Your task to perform on an android device: install app "Expedia: Hotels, Flights & Car" Image 0: 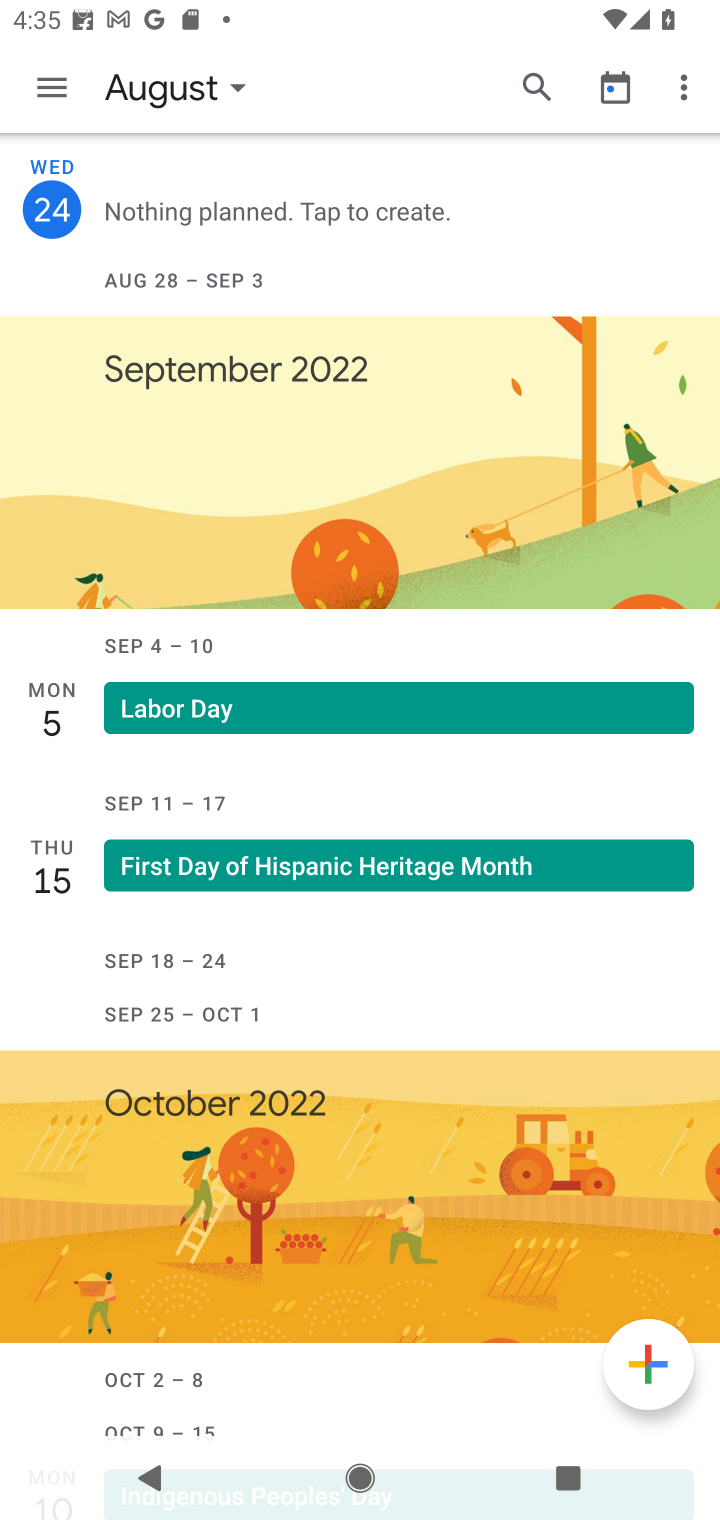
Step 0: press home button
Your task to perform on an android device: install app "Expedia: Hotels, Flights & Car" Image 1: 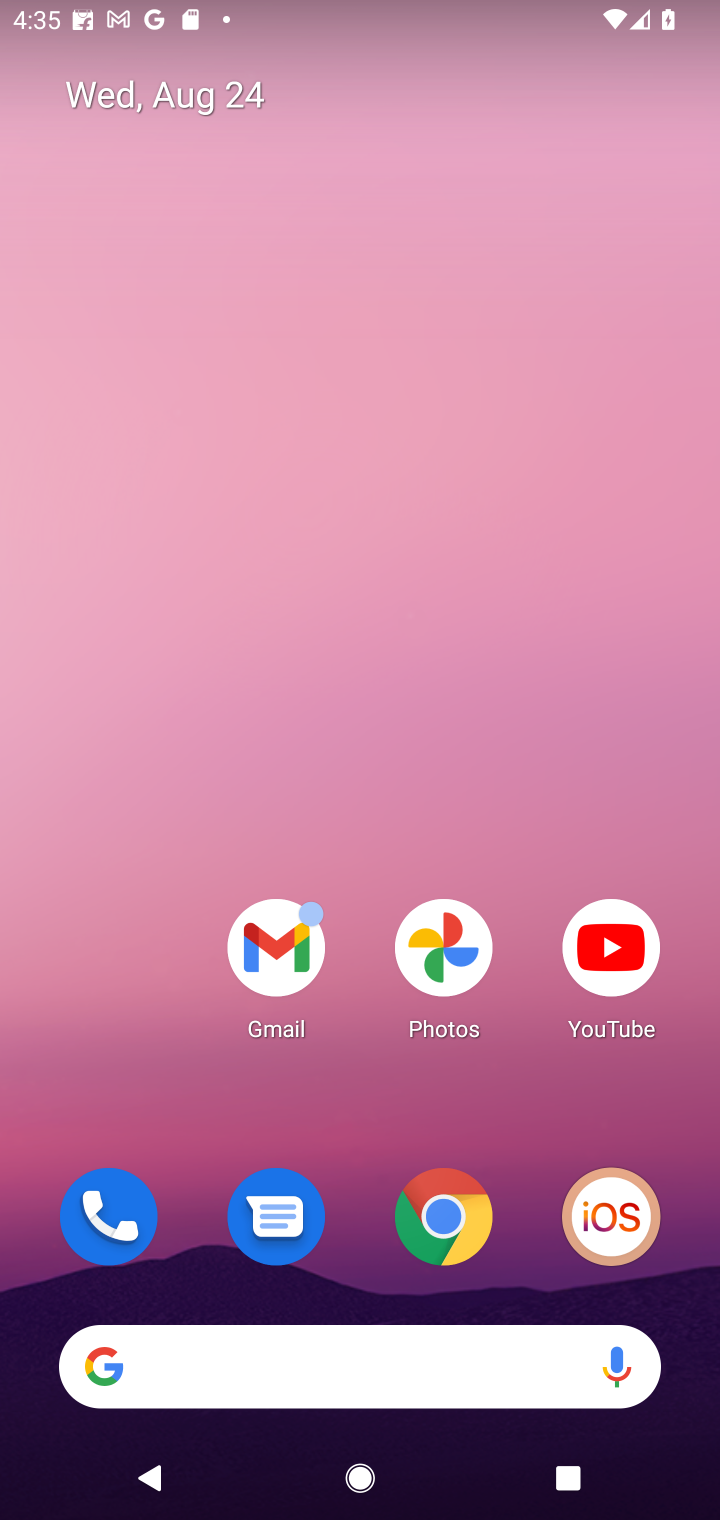
Step 1: drag from (355, 566) to (355, 151)
Your task to perform on an android device: install app "Expedia: Hotels, Flights & Car" Image 2: 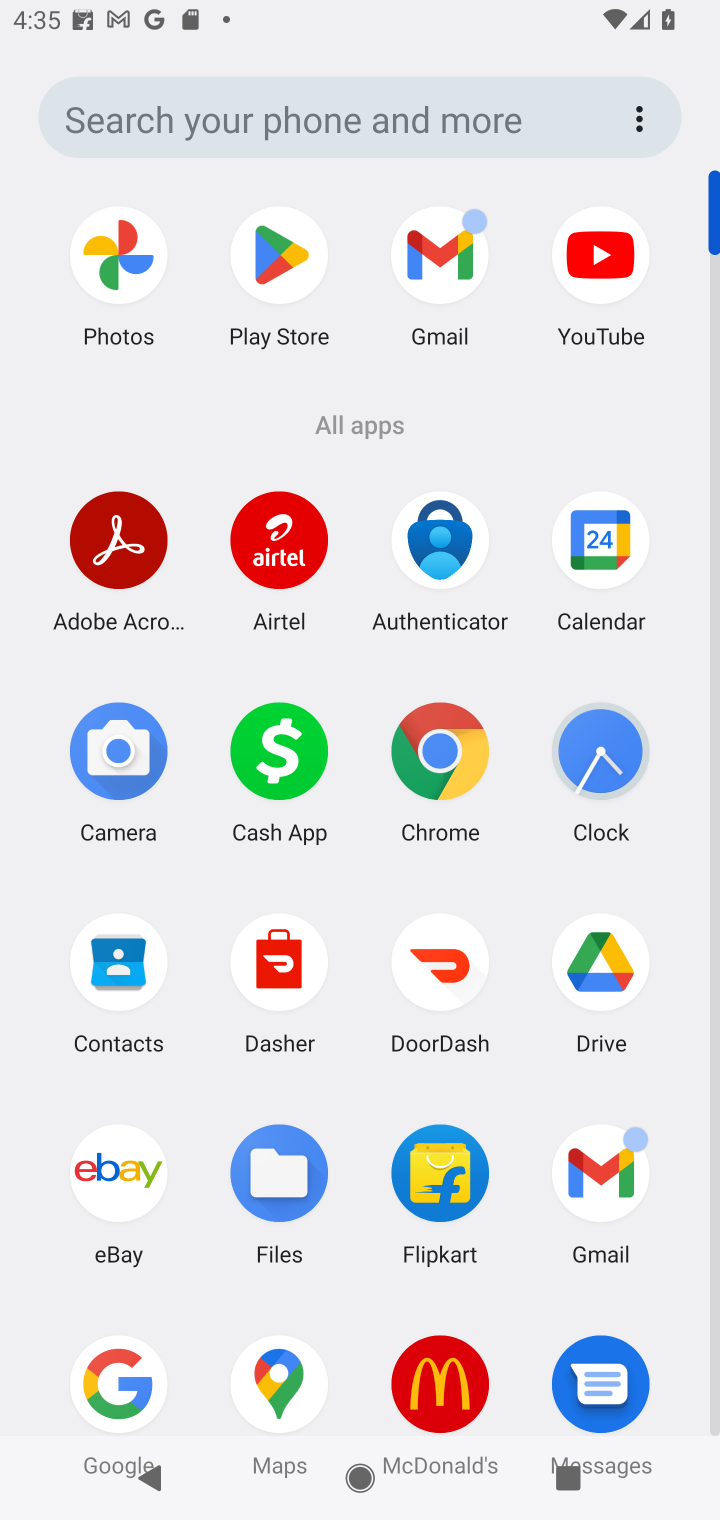
Step 2: click (278, 272)
Your task to perform on an android device: install app "Expedia: Hotels, Flights & Car" Image 3: 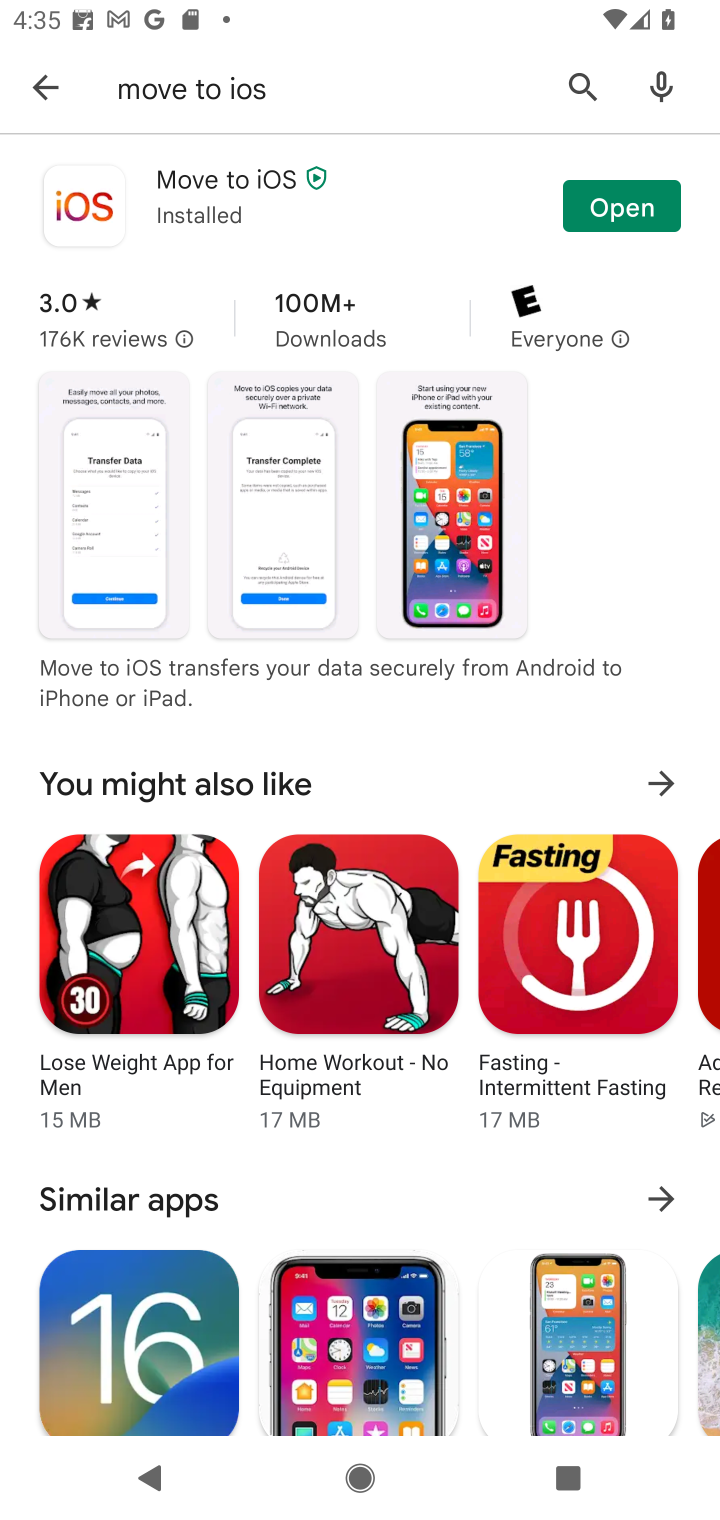
Step 3: click (573, 71)
Your task to perform on an android device: install app "Expedia: Hotels, Flights & Car" Image 4: 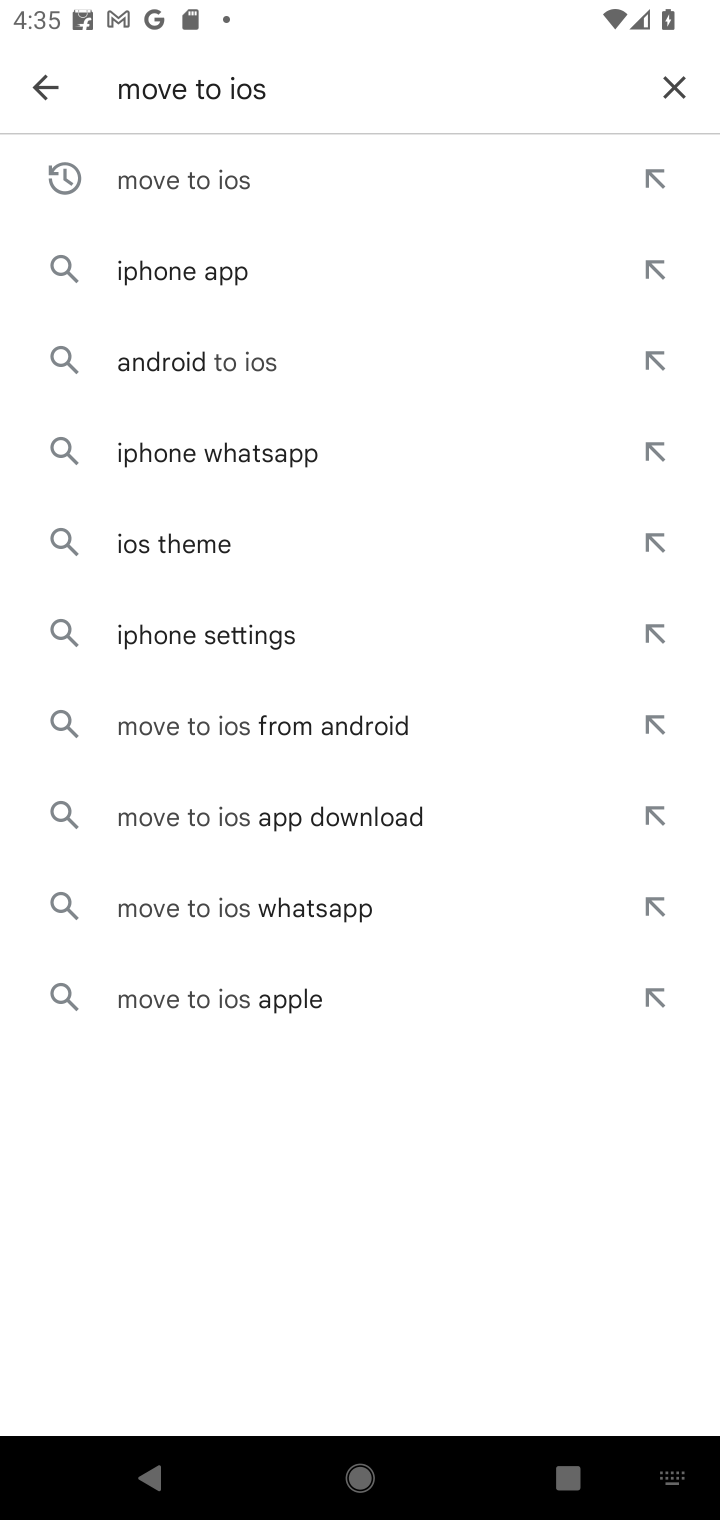
Step 4: click (660, 73)
Your task to perform on an android device: install app "Expedia: Hotels, Flights & Car" Image 5: 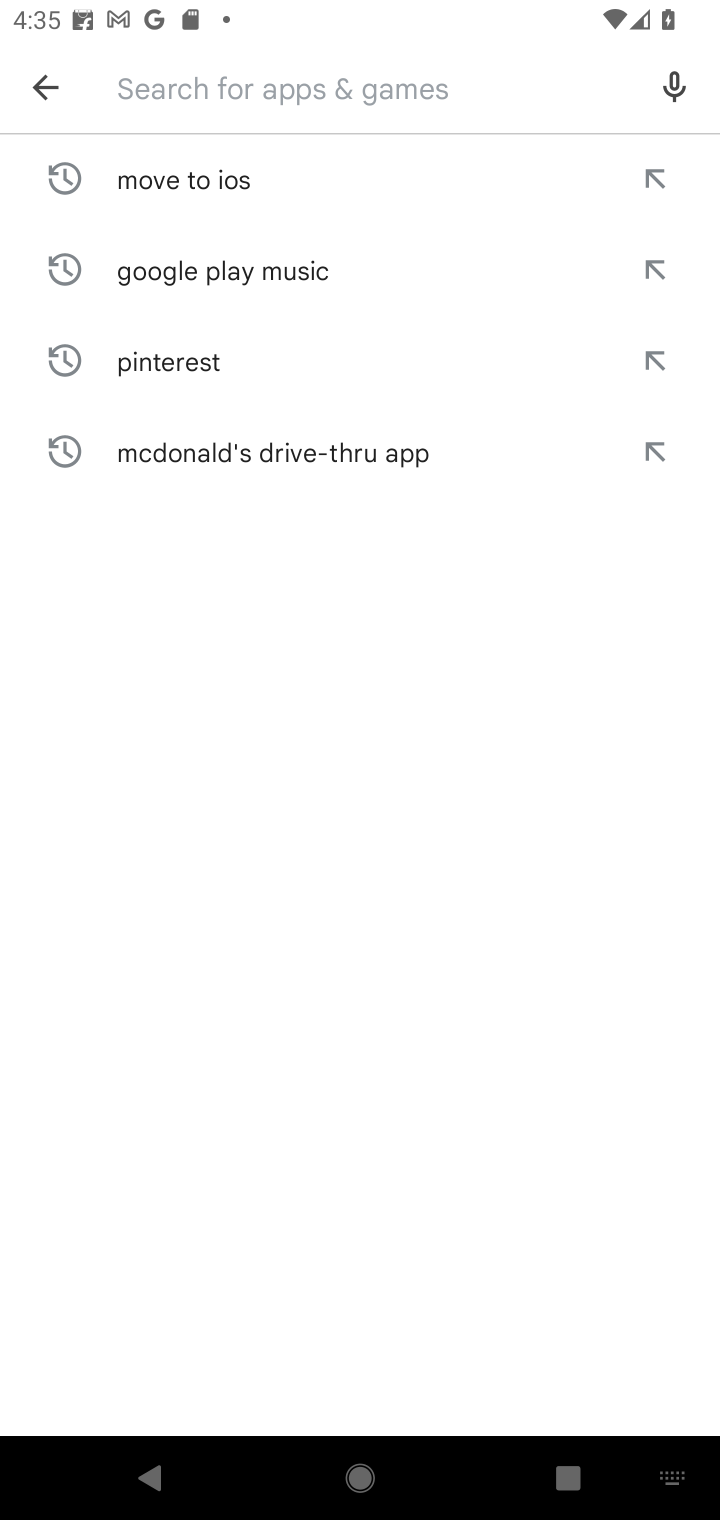
Step 5: type "Expedia: Hotels, Flights & Car"
Your task to perform on an android device: install app "Expedia: Hotels, Flights & Car" Image 6: 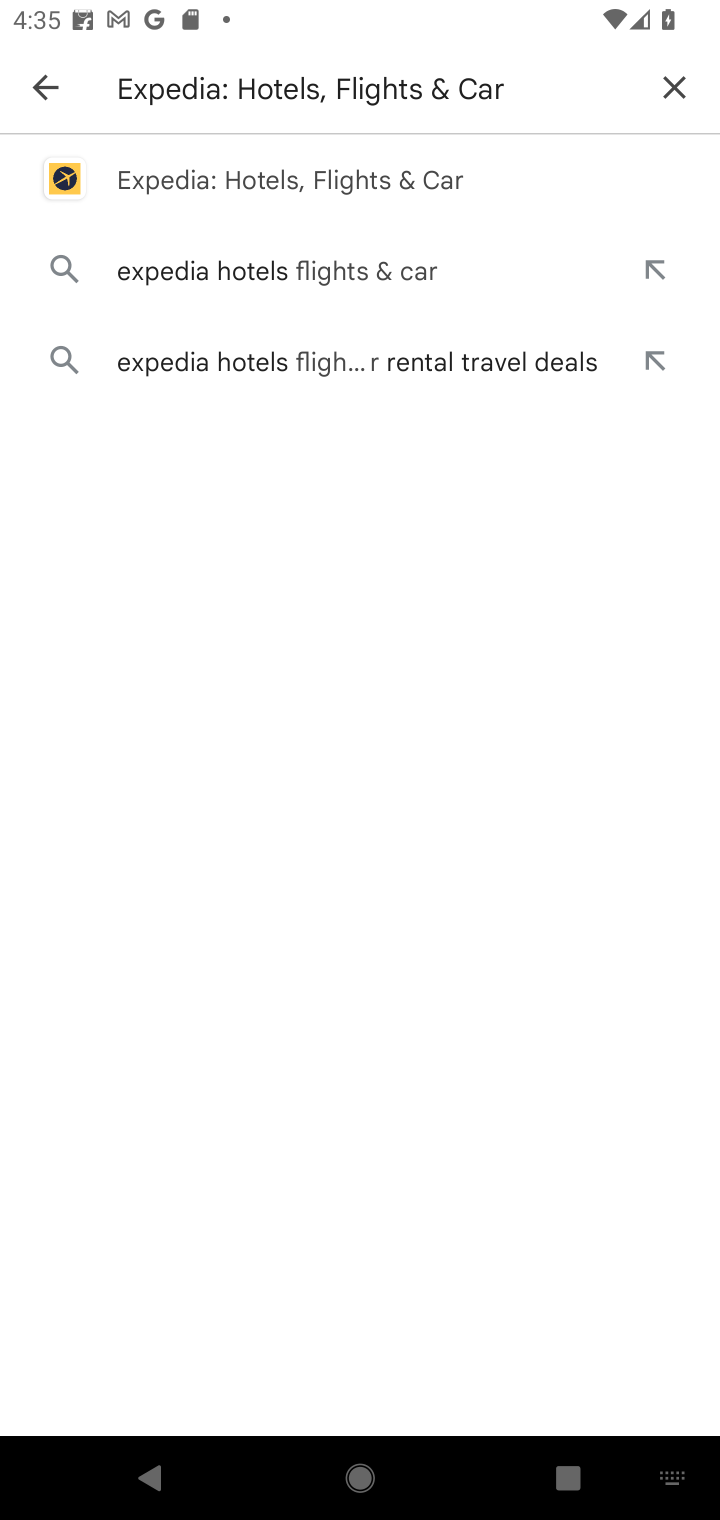
Step 6: click (263, 186)
Your task to perform on an android device: install app "Expedia: Hotels, Flights & Car" Image 7: 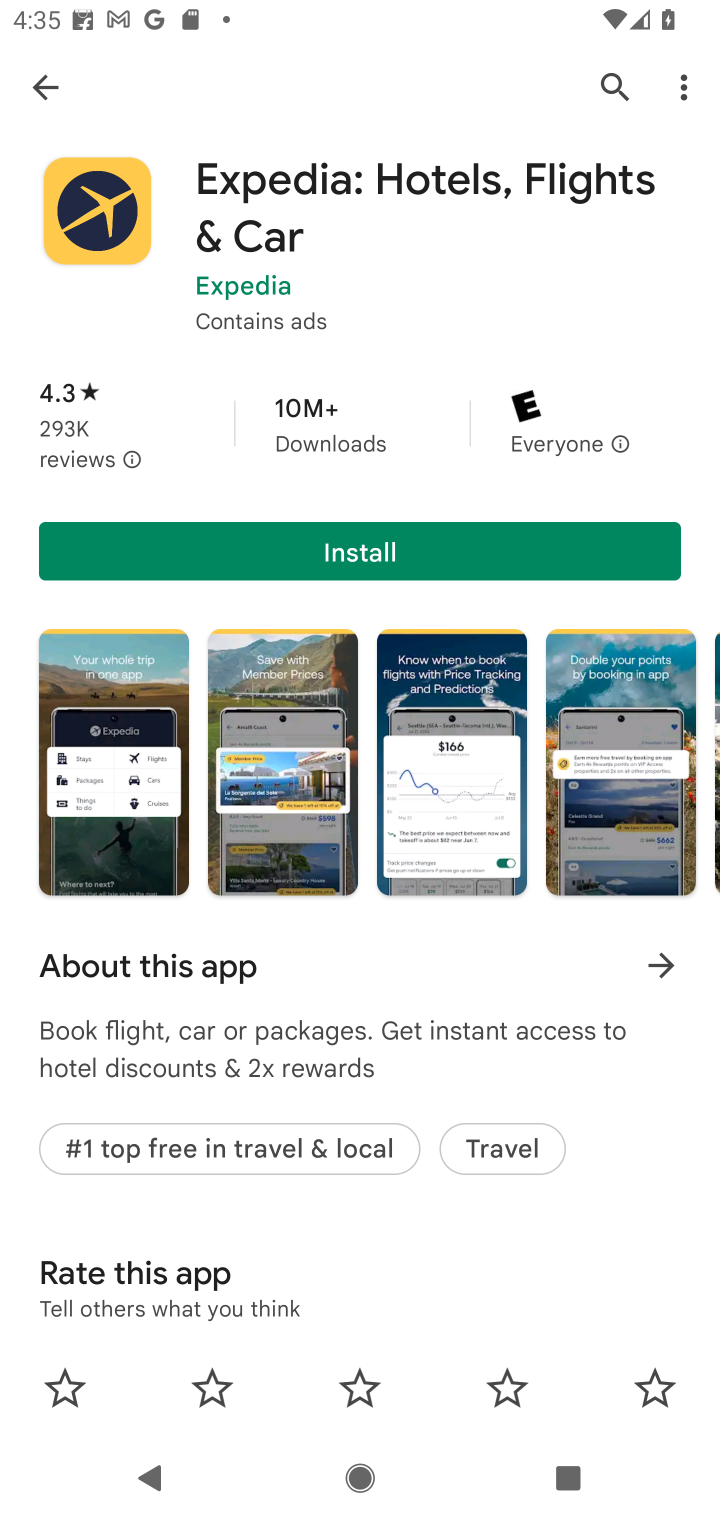
Step 7: click (387, 541)
Your task to perform on an android device: install app "Expedia: Hotels, Flights & Car" Image 8: 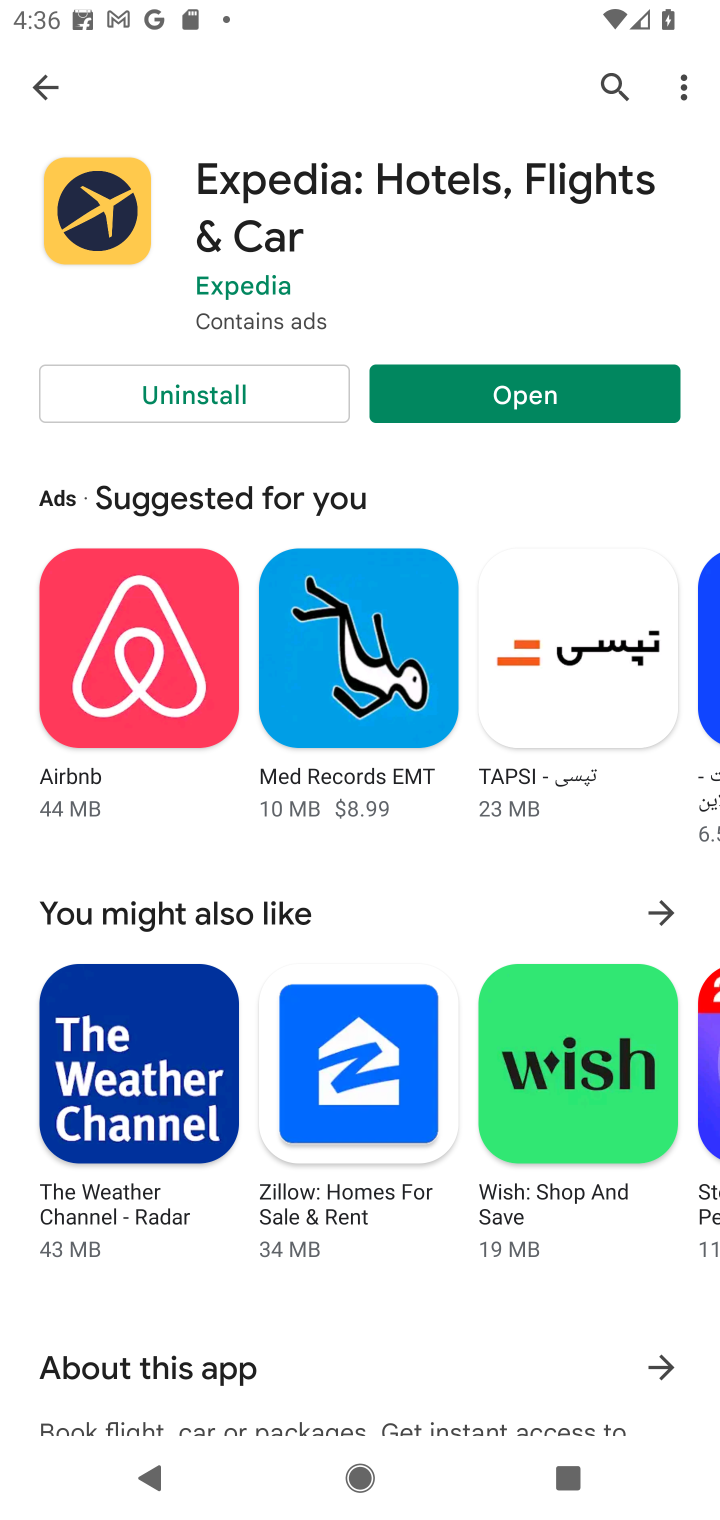
Step 8: task complete